Your task to perform on an android device: turn vacation reply on in the gmail app Image 0: 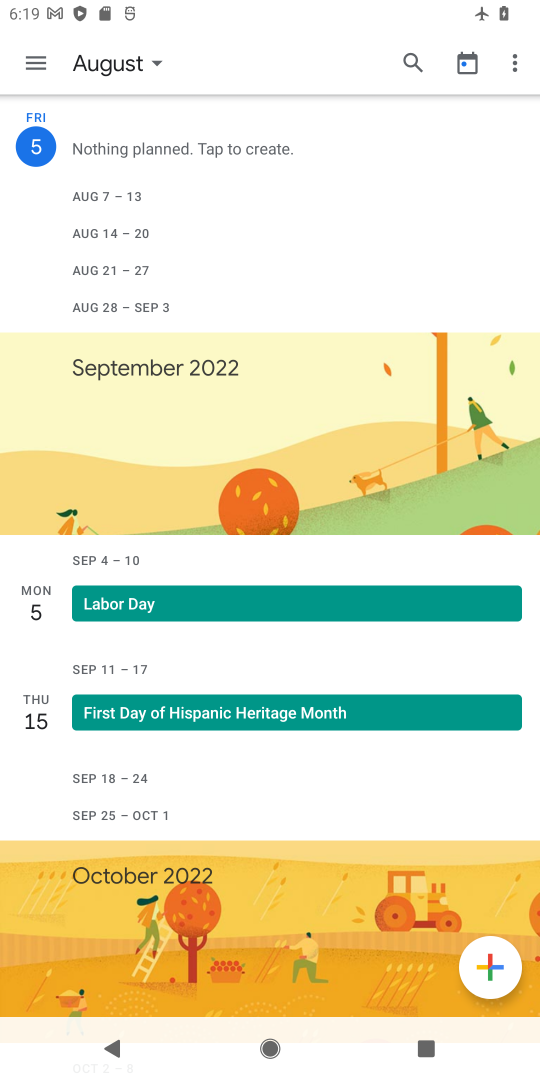
Step 0: press back button
Your task to perform on an android device: turn vacation reply on in the gmail app Image 1: 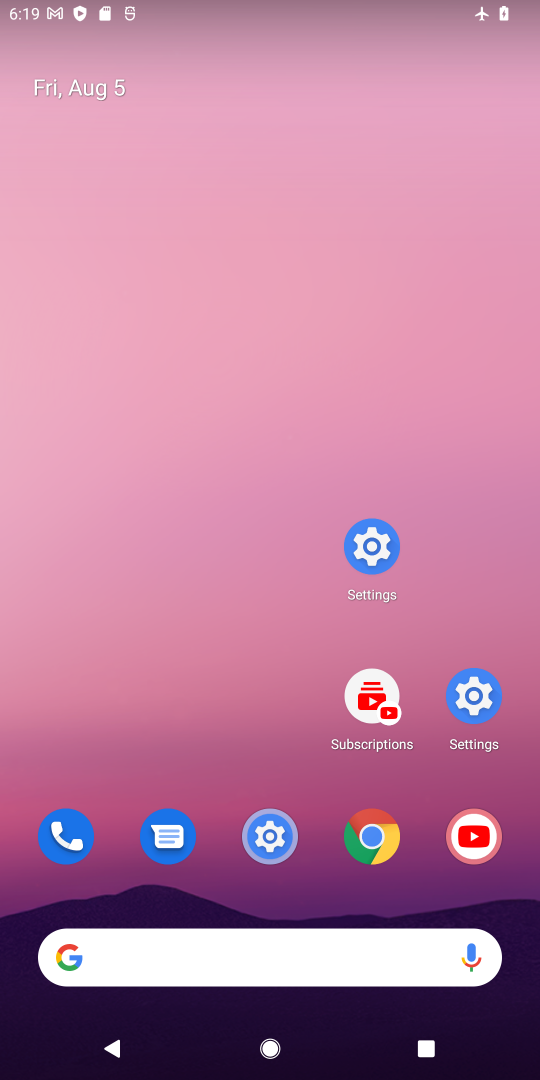
Step 1: drag from (237, 1017) to (198, 268)
Your task to perform on an android device: turn vacation reply on in the gmail app Image 2: 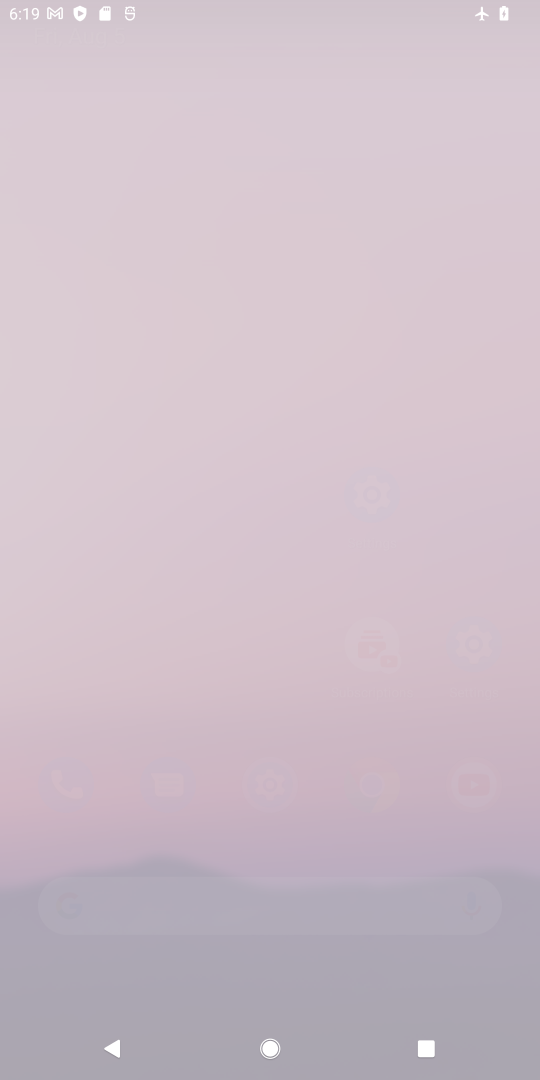
Step 2: drag from (260, 664) to (201, 307)
Your task to perform on an android device: turn vacation reply on in the gmail app Image 3: 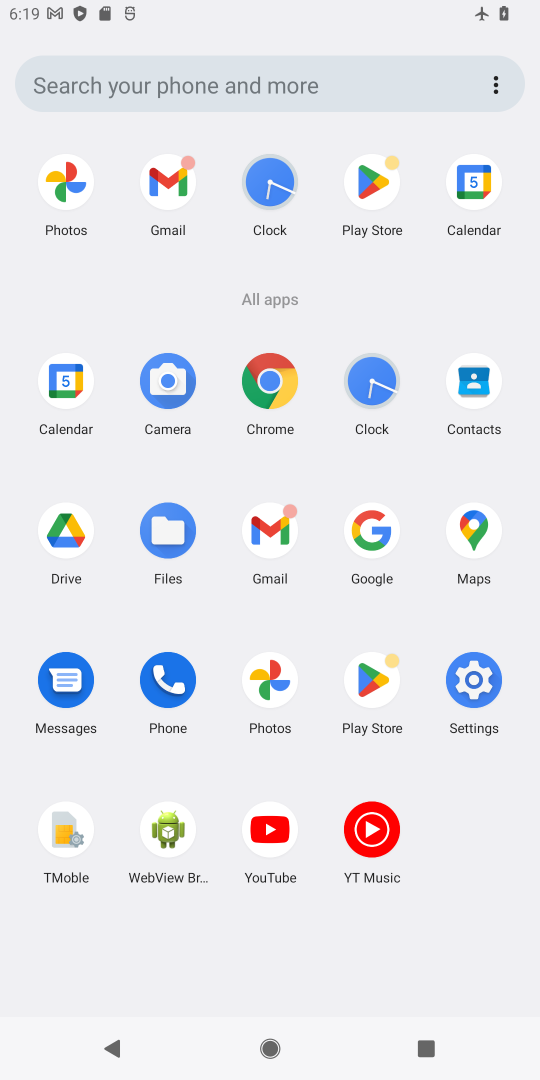
Step 3: click (273, 515)
Your task to perform on an android device: turn vacation reply on in the gmail app Image 4: 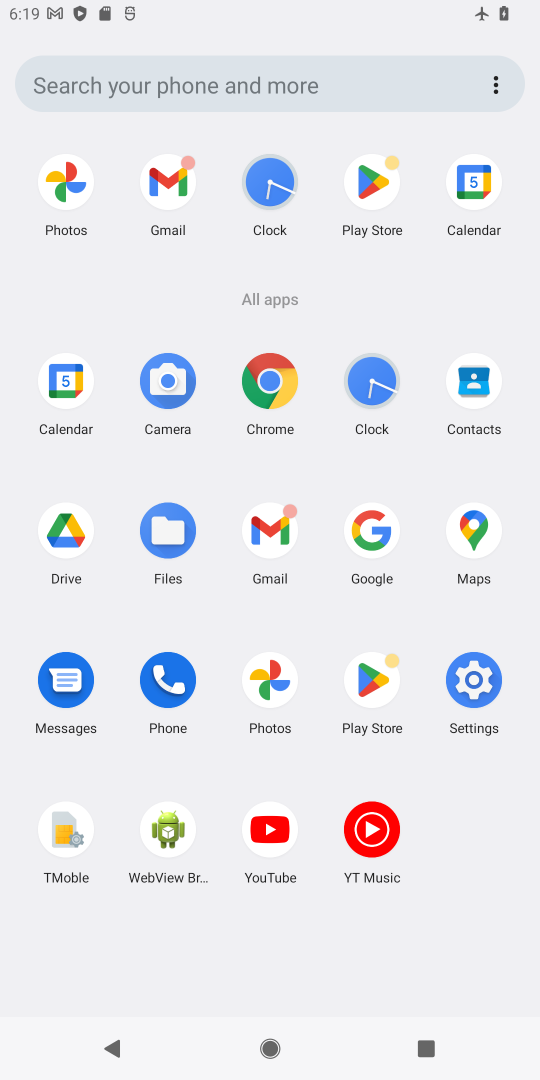
Step 4: click (269, 514)
Your task to perform on an android device: turn vacation reply on in the gmail app Image 5: 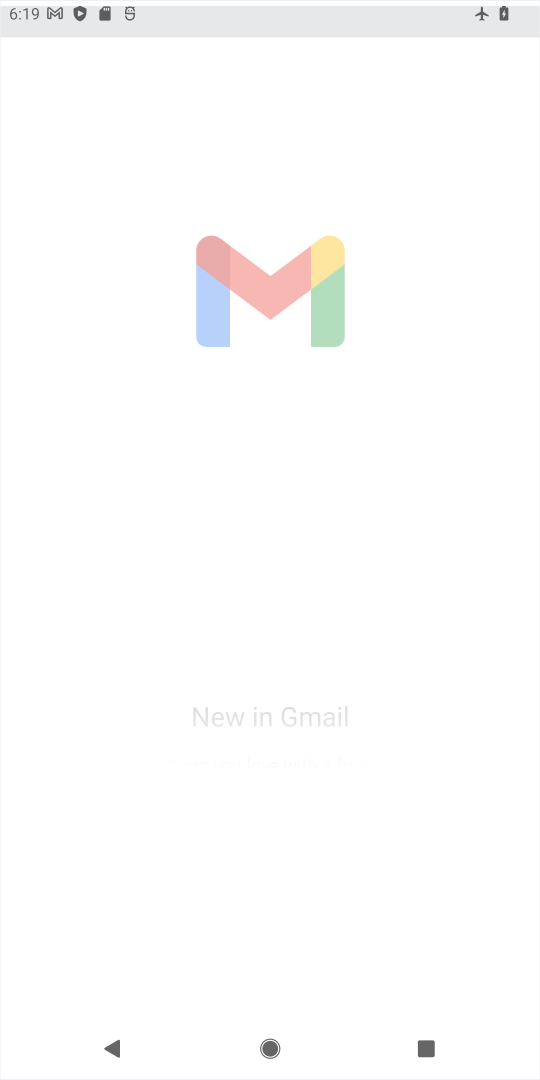
Step 5: click (269, 514)
Your task to perform on an android device: turn vacation reply on in the gmail app Image 6: 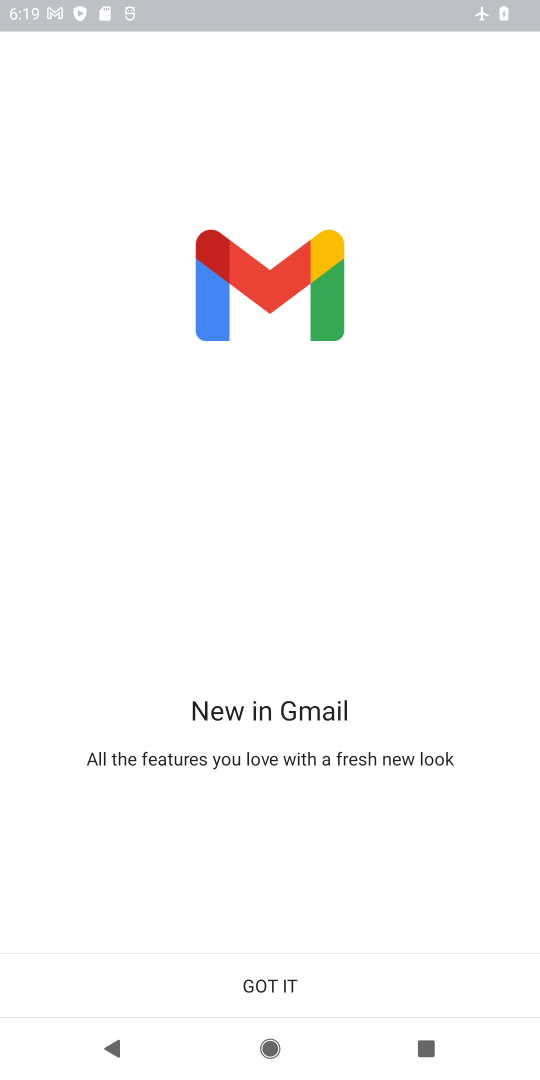
Step 6: click (269, 514)
Your task to perform on an android device: turn vacation reply on in the gmail app Image 7: 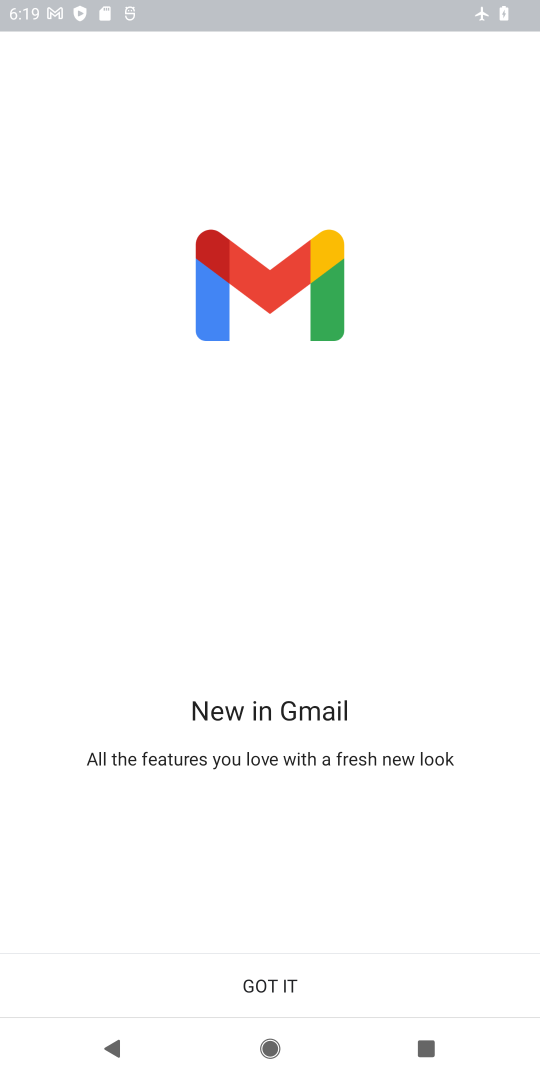
Step 7: click (288, 969)
Your task to perform on an android device: turn vacation reply on in the gmail app Image 8: 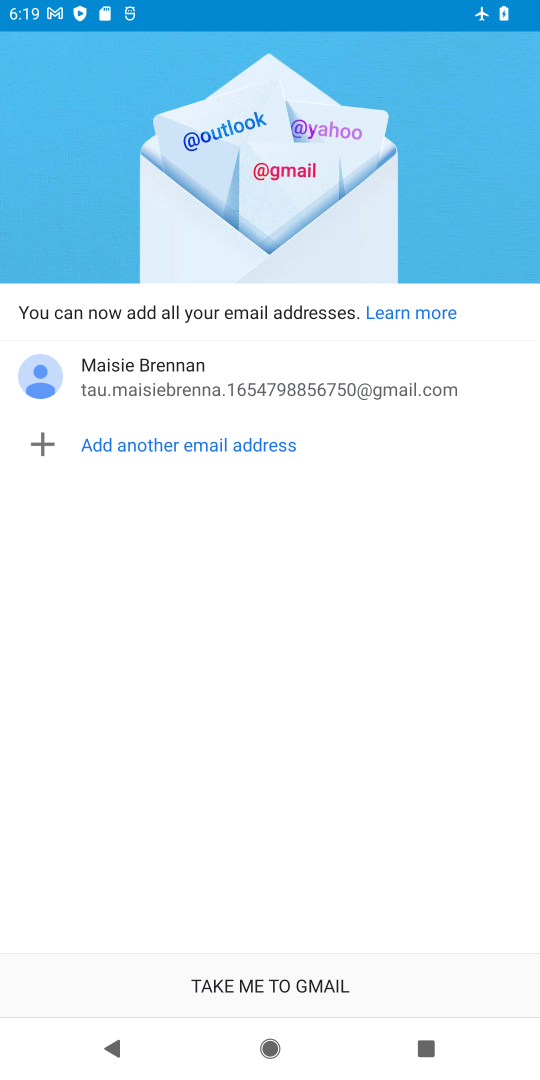
Step 8: click (279, 977)
Your task to perform on an android device: turn vacation reply on in the gmail app Image 9: 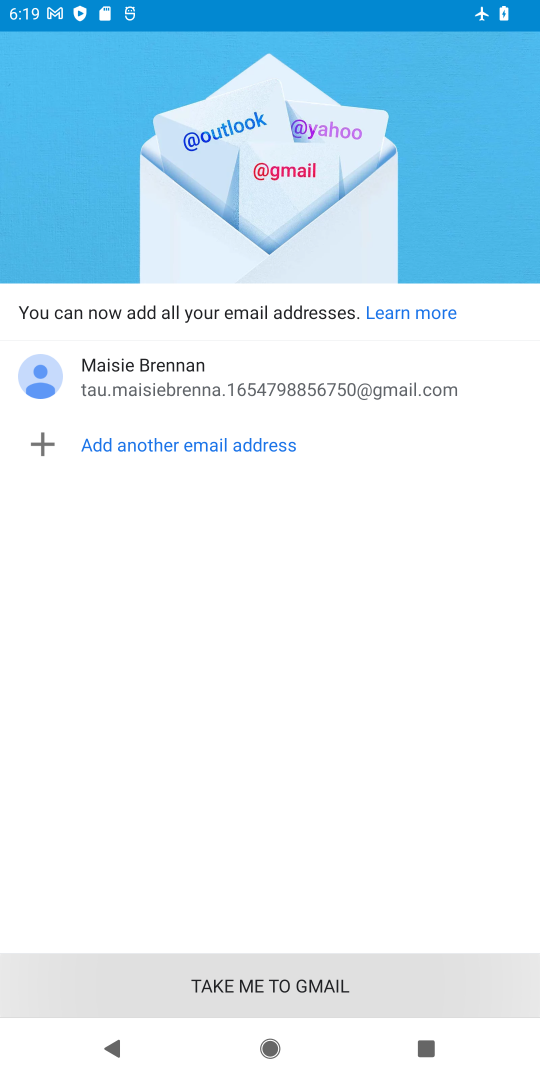
Step 9: click (279, 977)
Your task to perform on an android device: turn vacation reply on in the gmail app Image 10: 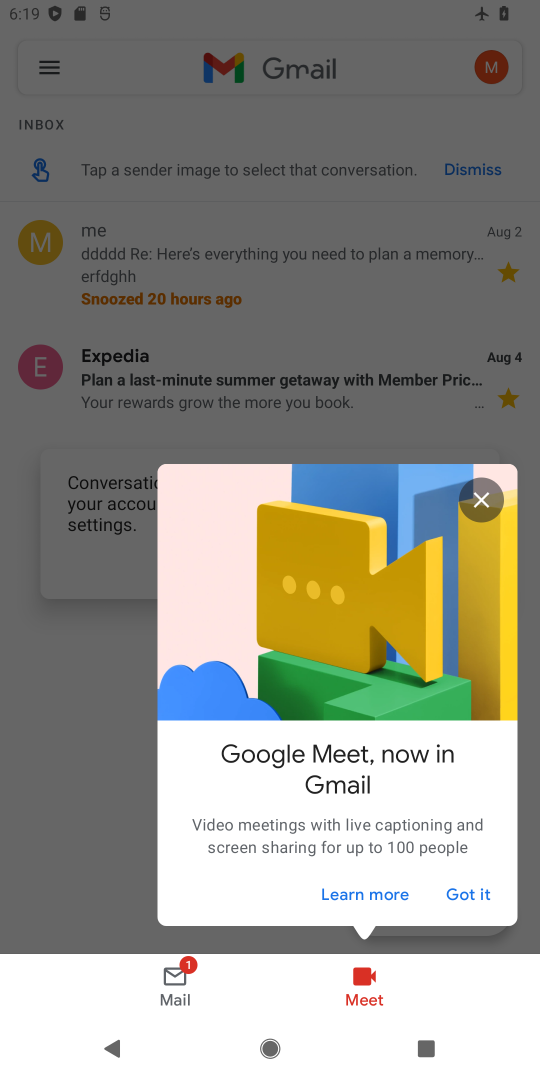
Step 10: click (480, 496)
Your task to perform on an android device: turn vacation reply on in the gmail app Image 11: 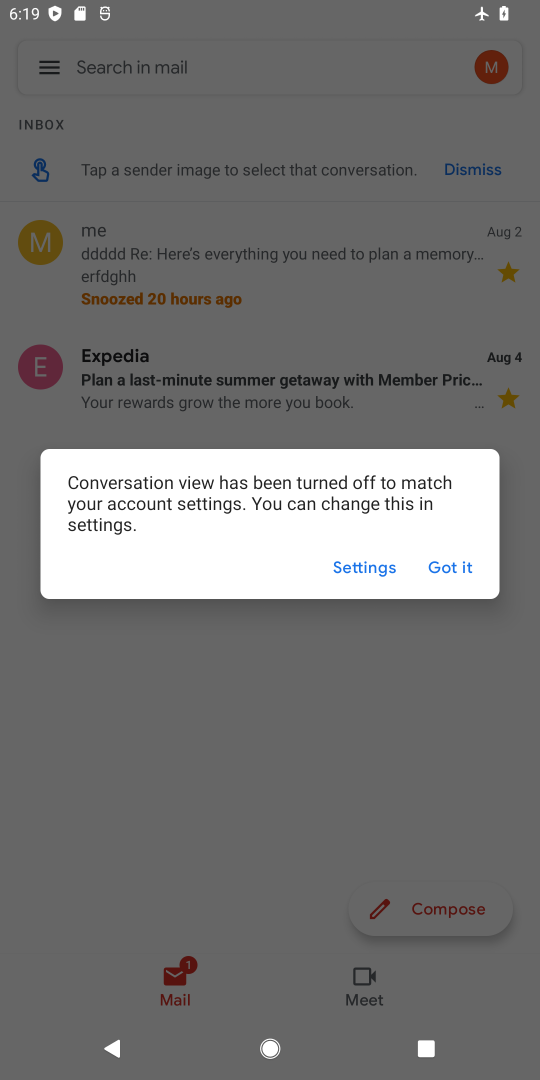
Step 11: click (427, 568)
Your task to perform on an android device: turn vacation reply on in the gmail app Image 12: 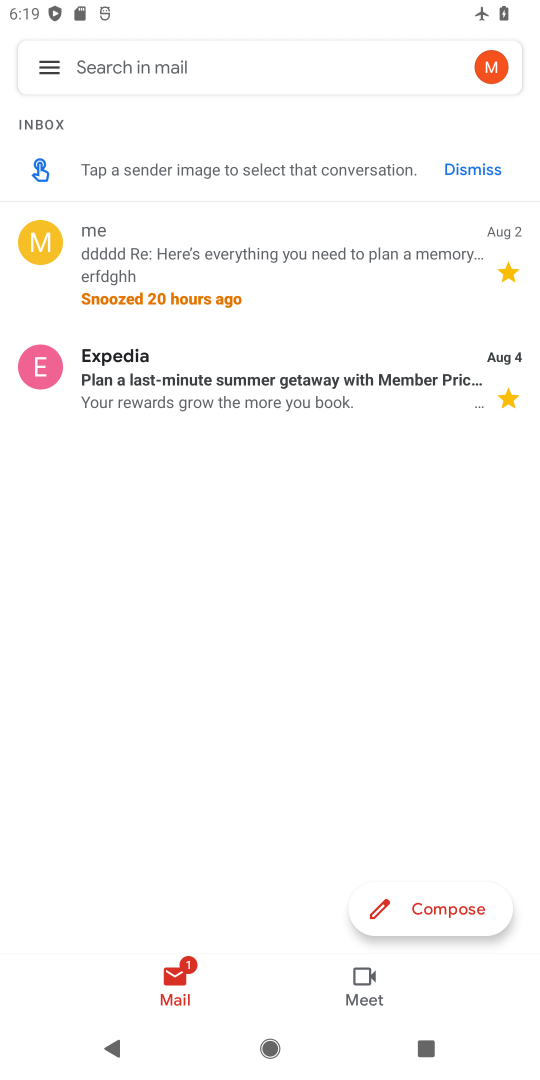
Step 12: click (48, 60)
Your task to perform on an android device: turn vacation reply on in the gmail app Image 13: 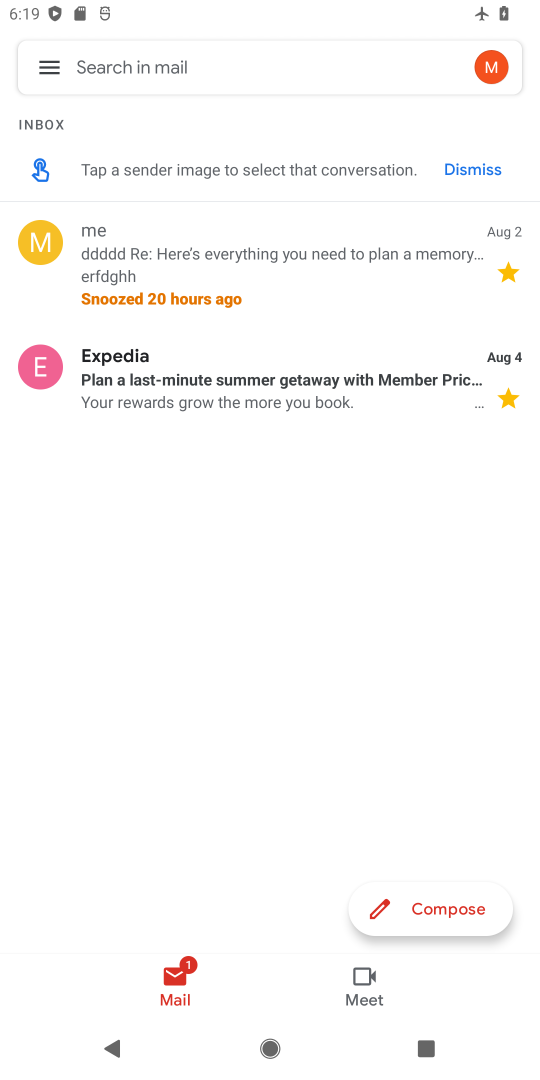
Step 13: click (48, 60)
Your task to perform on an android device: turn vacation reply on in the gmail app Image 14: 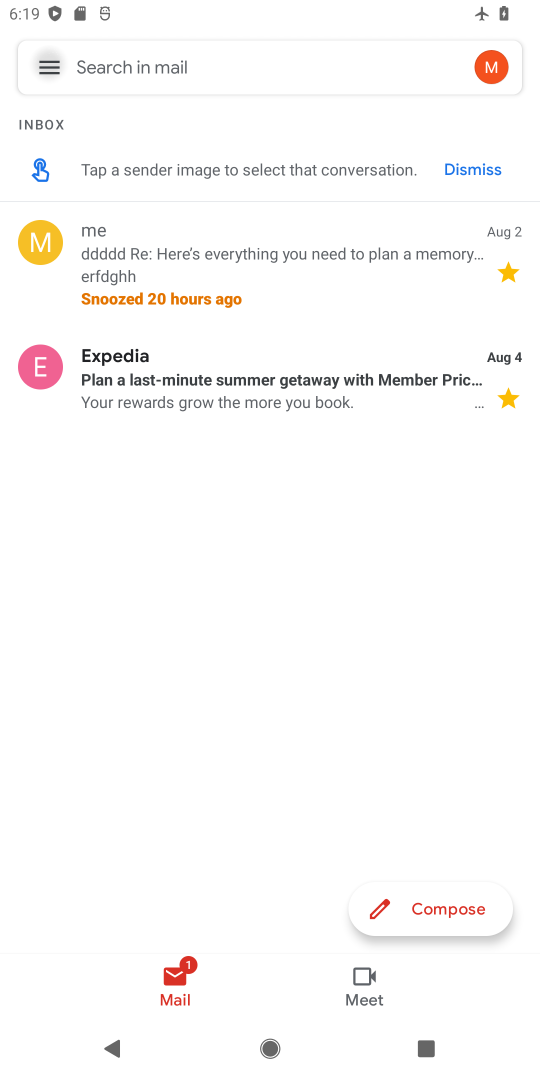
Step 14: click (49, 63)
Your task to perform on an android device: turn vacation reply on in the gmail app Image 15: 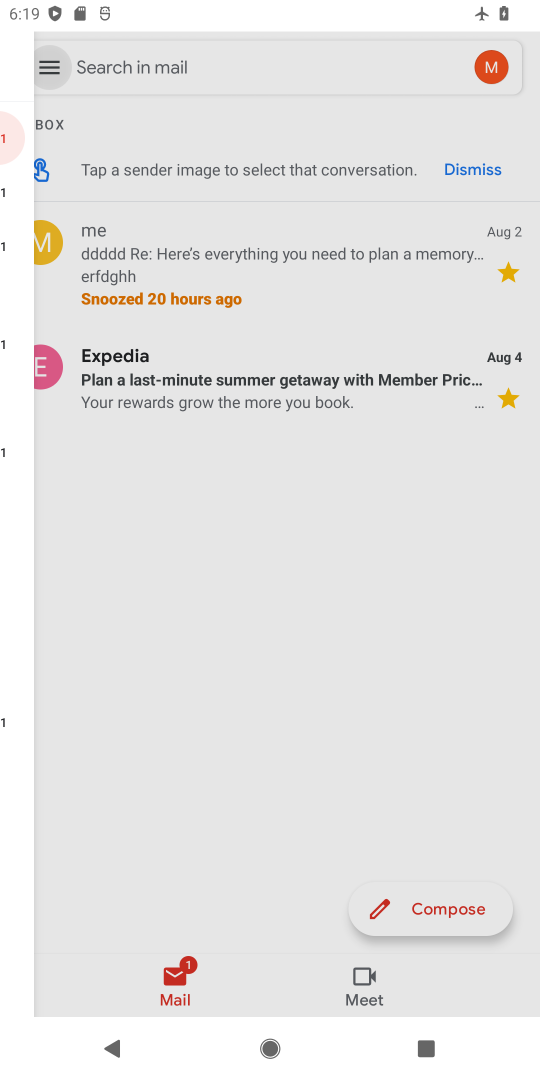
Step 15: click (49, 63)
Your task to perform on an android device: turn vacation reply on in the gmail app Image 16: 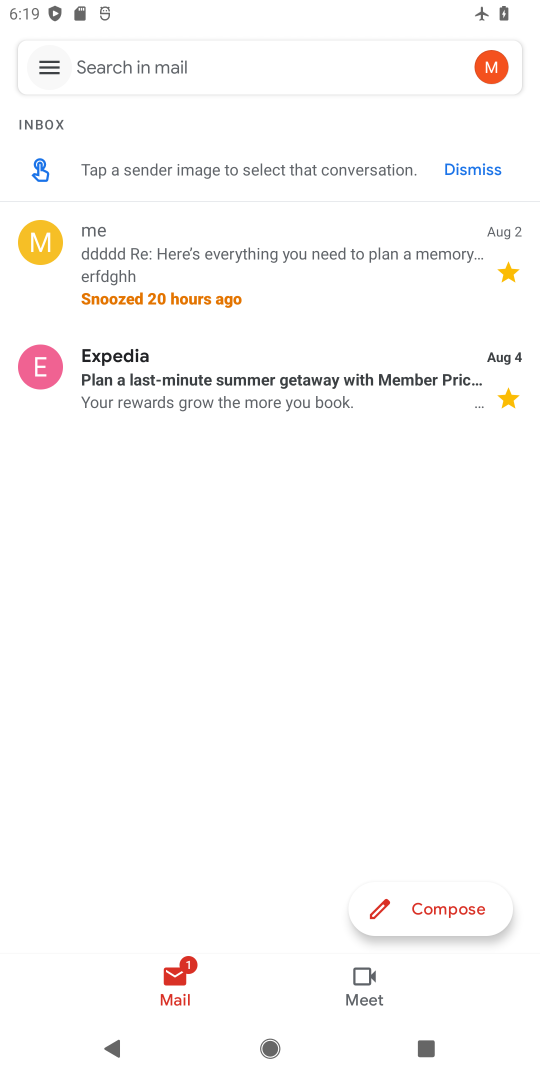
Step 16: click (49, 63)
Your task to perform on an android device: turn vacation reply on in the gmail app Image 17: 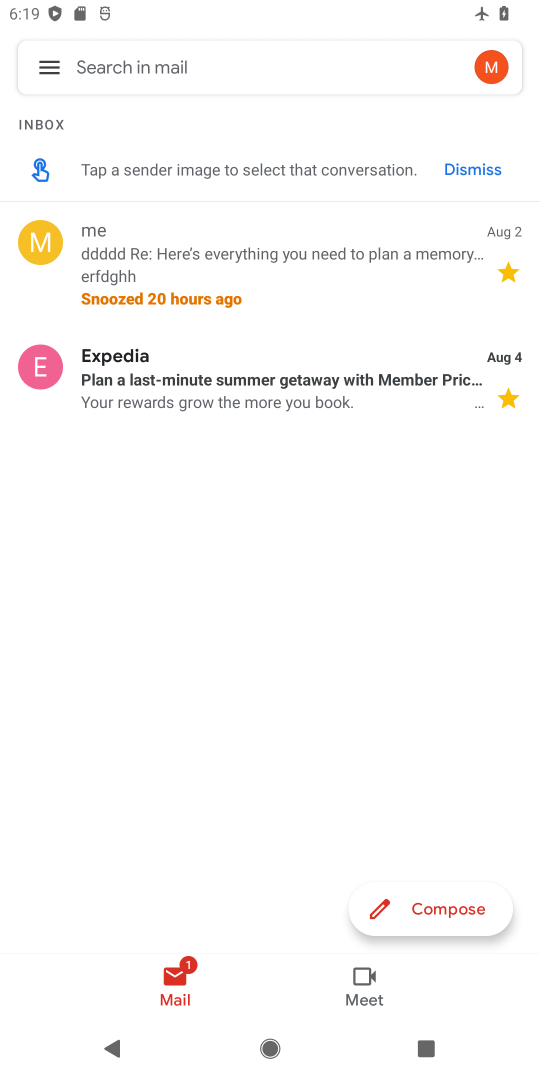
Step 17: click (48, 64)
Your task to perform on an android device: turn vacation reply on in the gmail app Image 18: 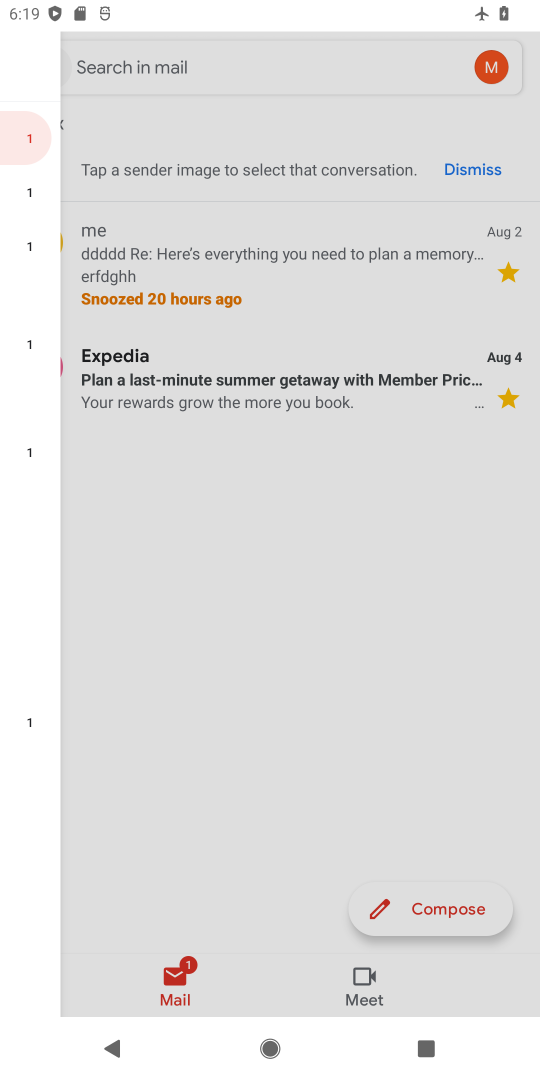
Step 18: click (48, 64)
Your task to perform on an android device: turn vacation reply on in the gmail app Image 19: 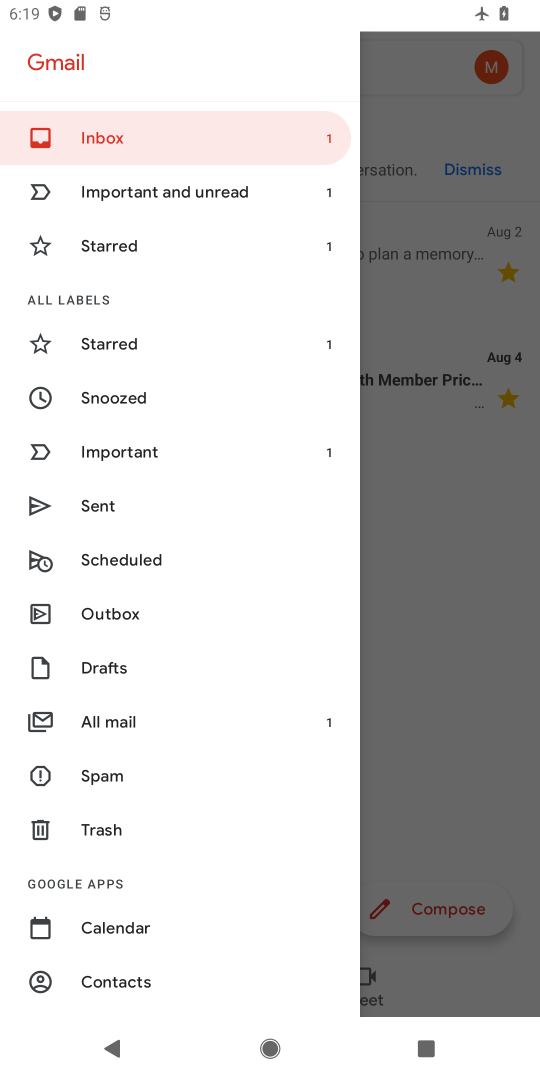
Step 19: drag from (109, 901) to (131, 464)
Your task to perform on an android device: turn vacation reply on in the gmail app Image 20: 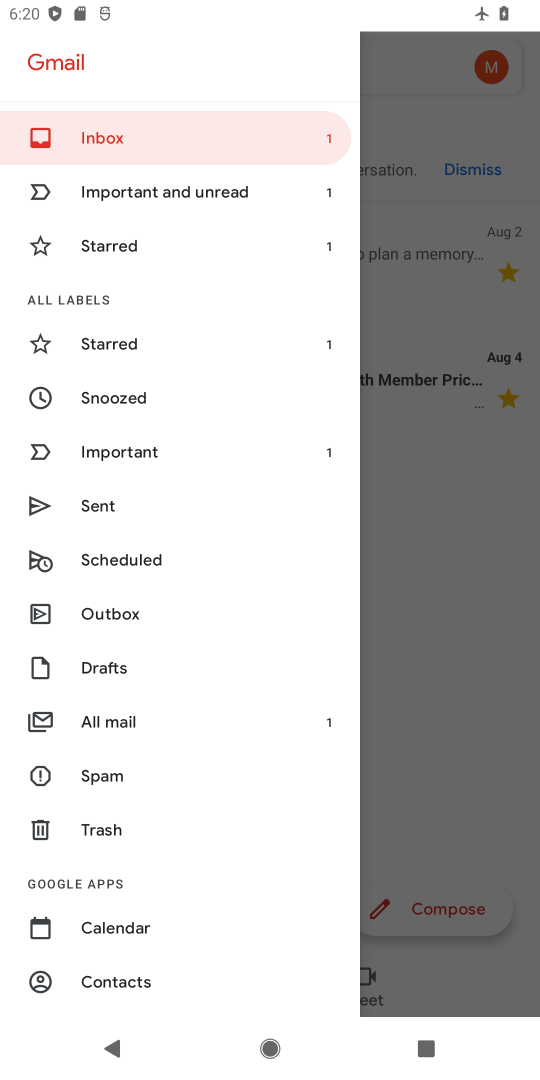
Step 20: drag from (182, 893) to (175, 412)
Your task to perform on an android device: turn vacation reply on in the gmail app Image 21: 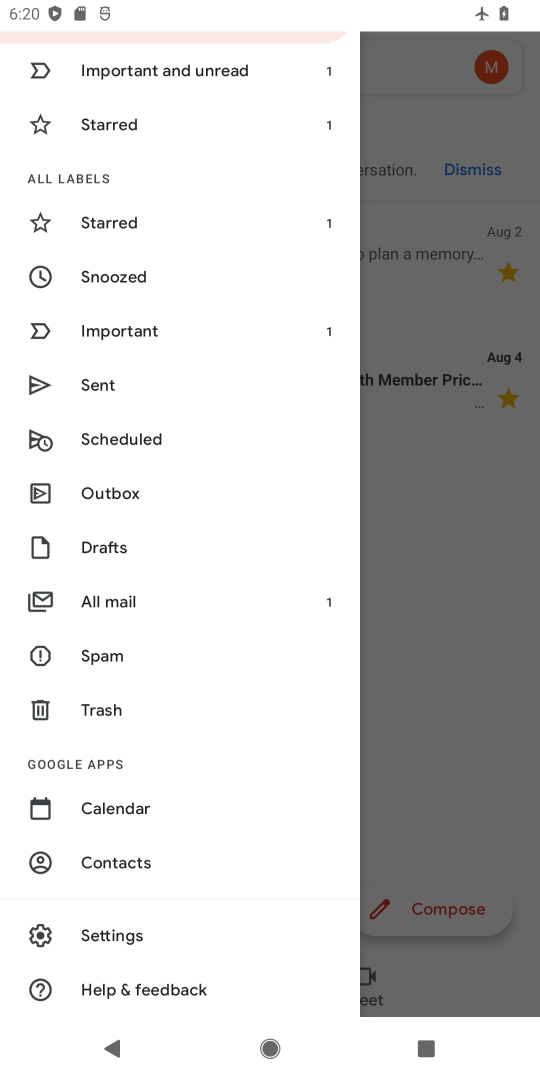
Step 21: drag from (175, 737) to (189, 255)
Your task to perform on an android device: turn vacation reply on in the gmail app Image 22: 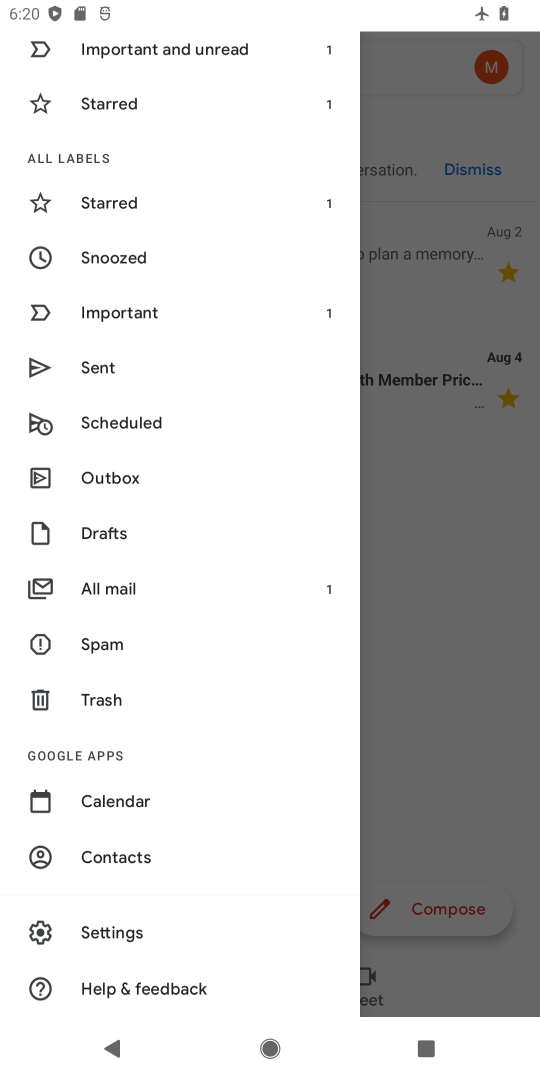
Step 22: drag from (187, 821) to (201, 391)
Your task to perform on an android device: turn vacation reply on in the gmail app Image 23: 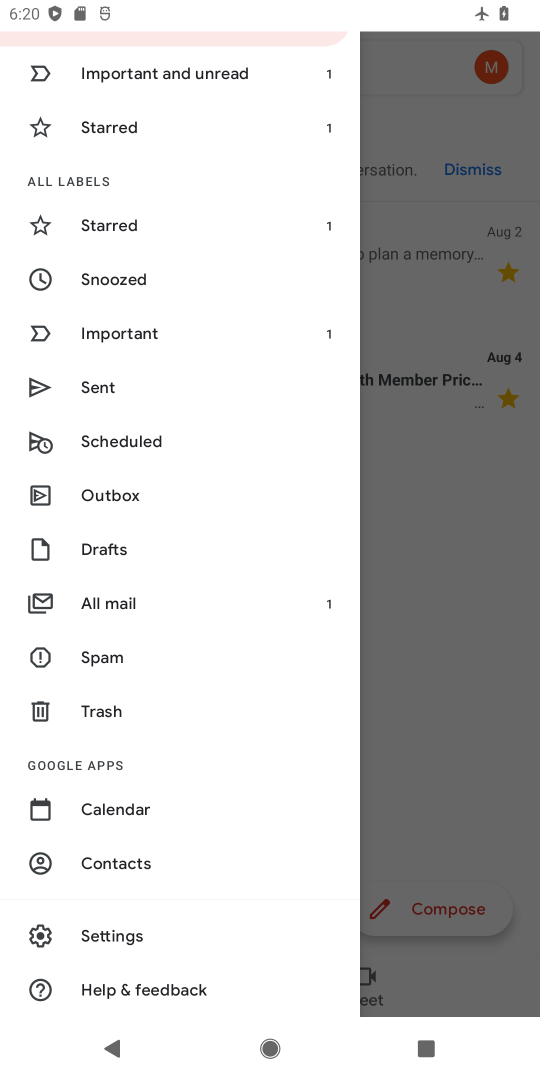
Step 23: click (112, 923)
Your task to perform on an android device: turn vacation reply on in the gmail app Image 24: 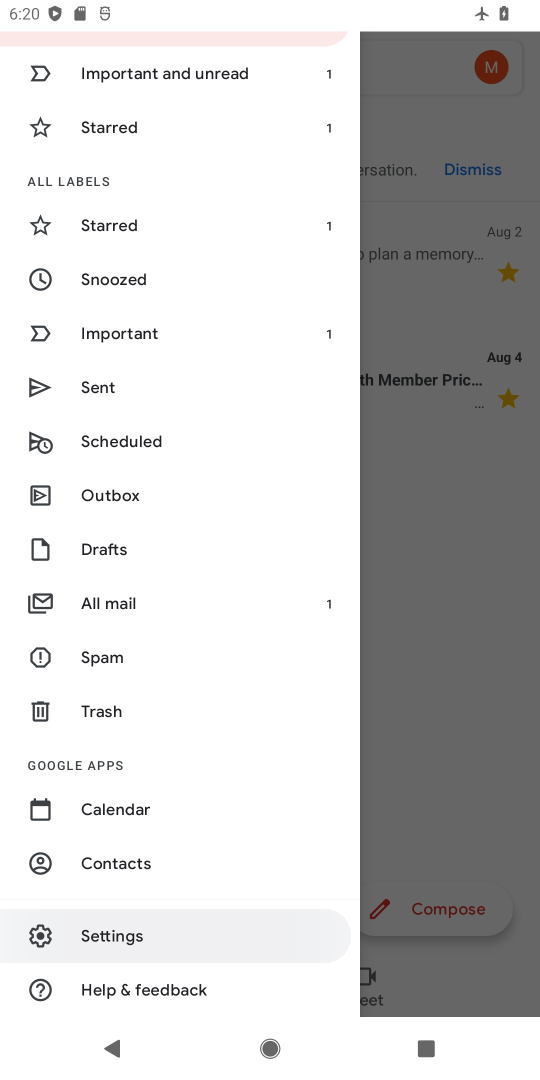
Step 24: click (114, 928)
Your task to perform on an android device: turn vacation reply on in the gmail app Image 25: 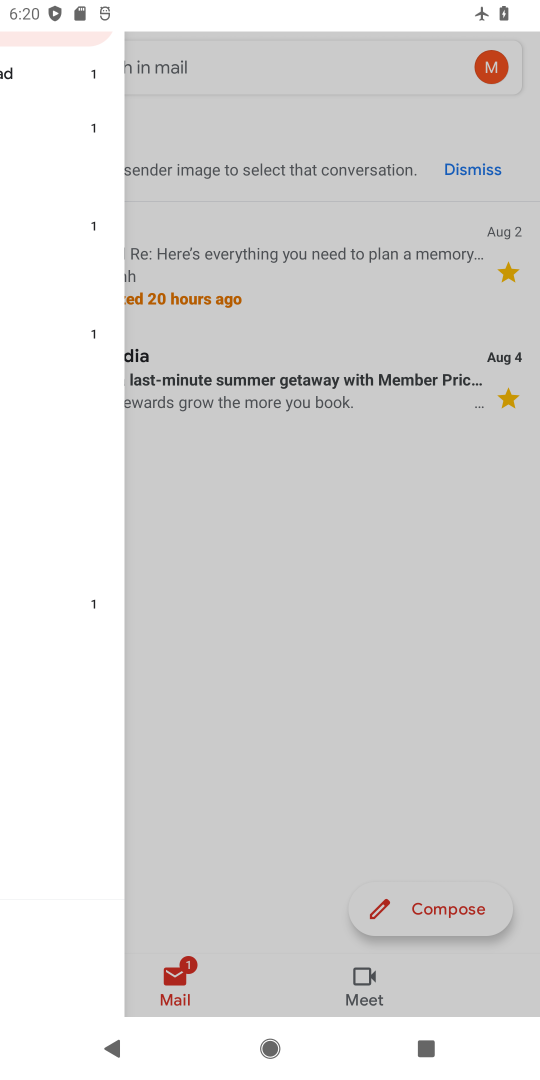
Step 25: click (114, 928)
Your task to perform on an android device: turn vacation reply on in the gmail app Image 26: 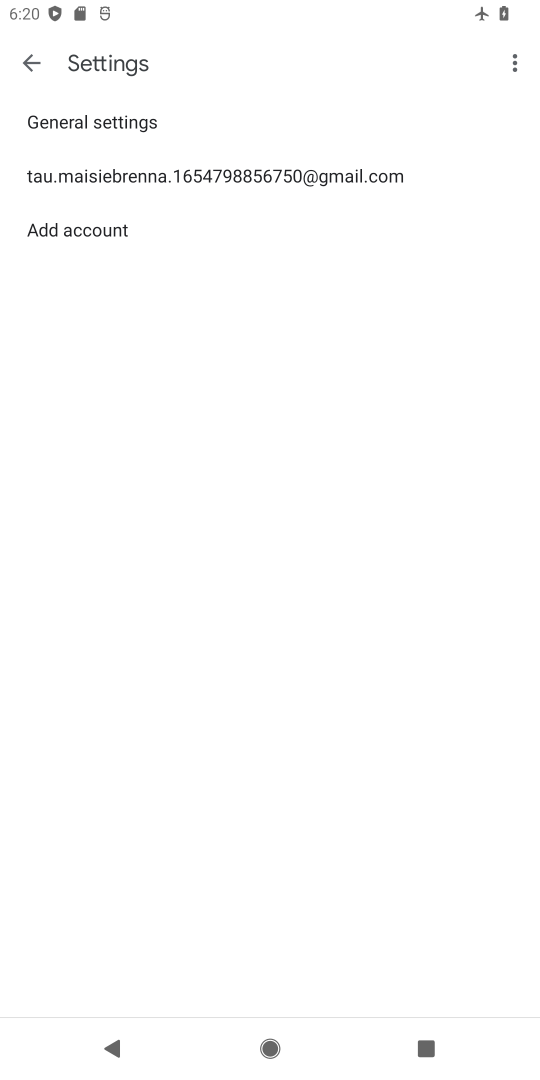
Step 26: click (152, 175)
Your task to perform on an android device: turn vacation reply on in the gmail app Image 27: 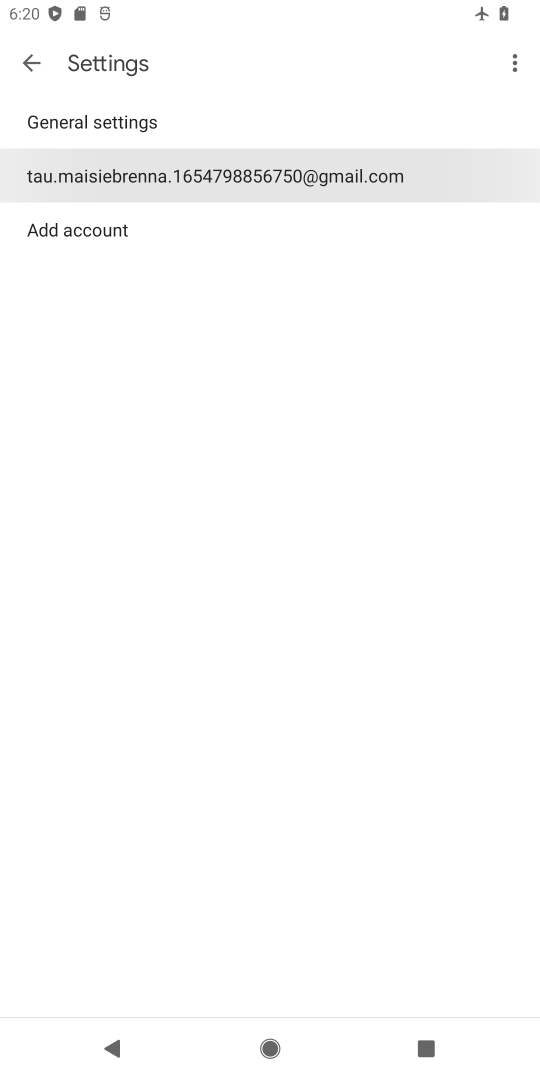
Step 27: click (152, 175)
Your task to perform on an android device: turn vacation reply on in the gmail app Image 28: 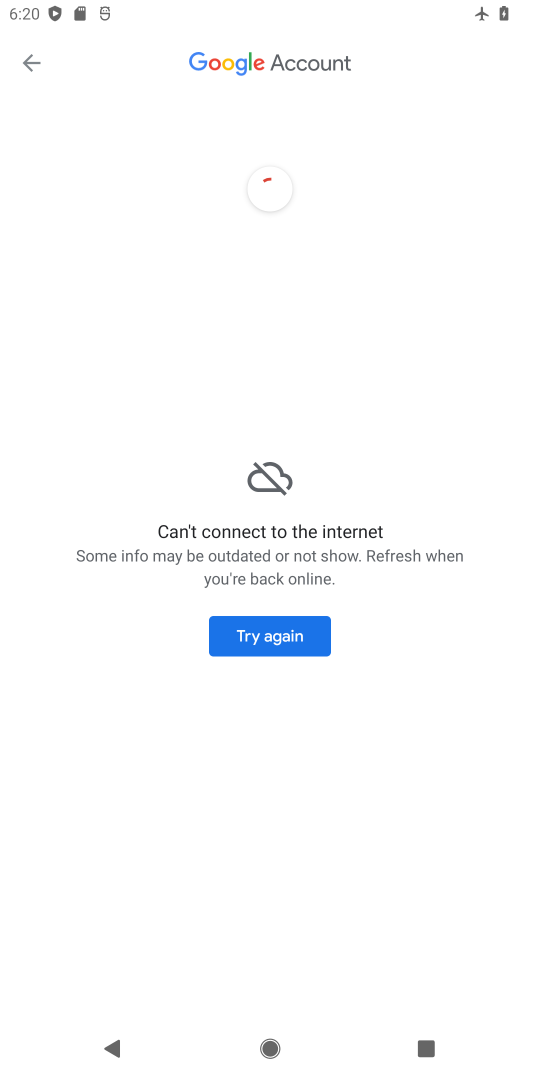
Step 28: click (30, 63)
Your task to perform on an android device: turn vacation reply on in the gmail app Image 29: 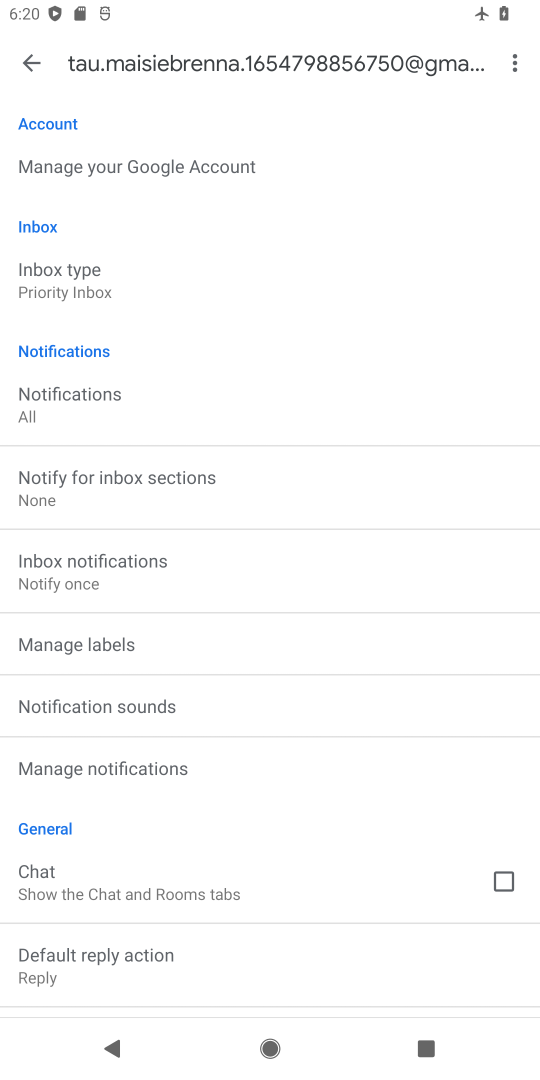
Step 29: drag from (124, 943) to (199, 196)
Your task to perform on an android device: turn vacation reply on in the gmail app Image 30: 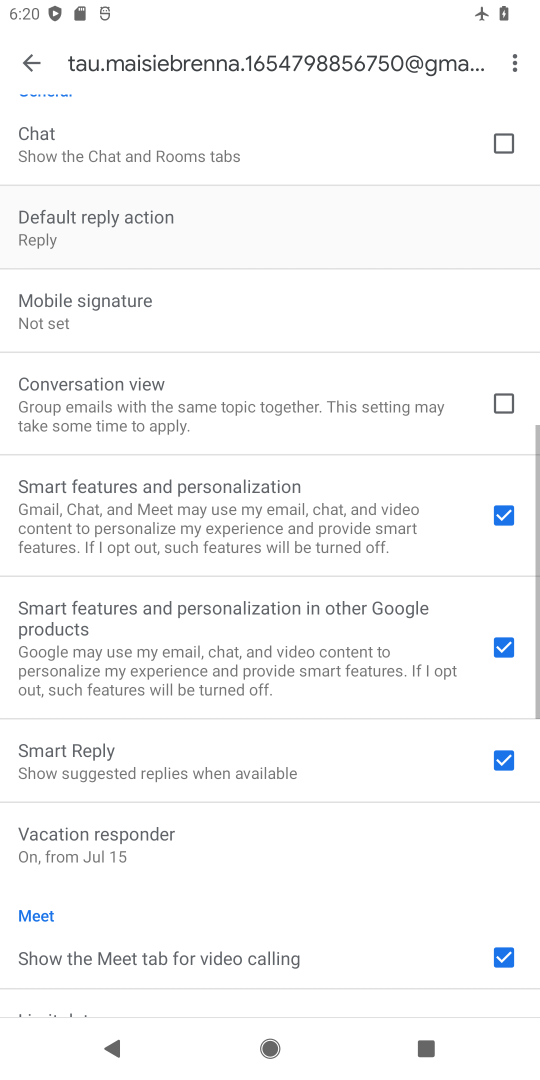
Step 30: drag from (204, 587) to (229, 192)
Your task to perform on an android device: turn vacation reply on in the gmail app Image 31: 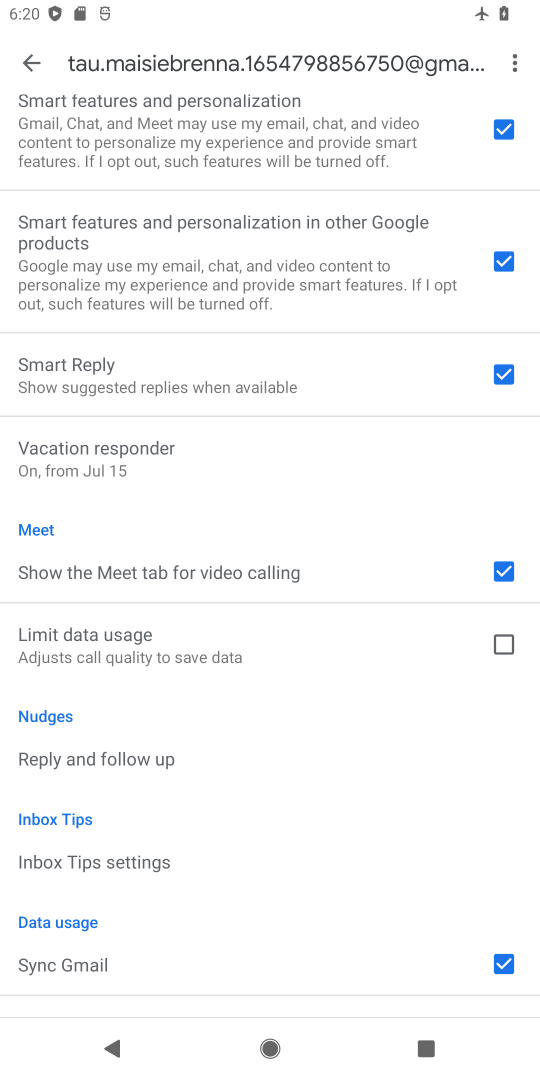
Step 31: click (61, 614)
Your task to perform on an android device: turn vacation reply on in the gmail app Image 32: 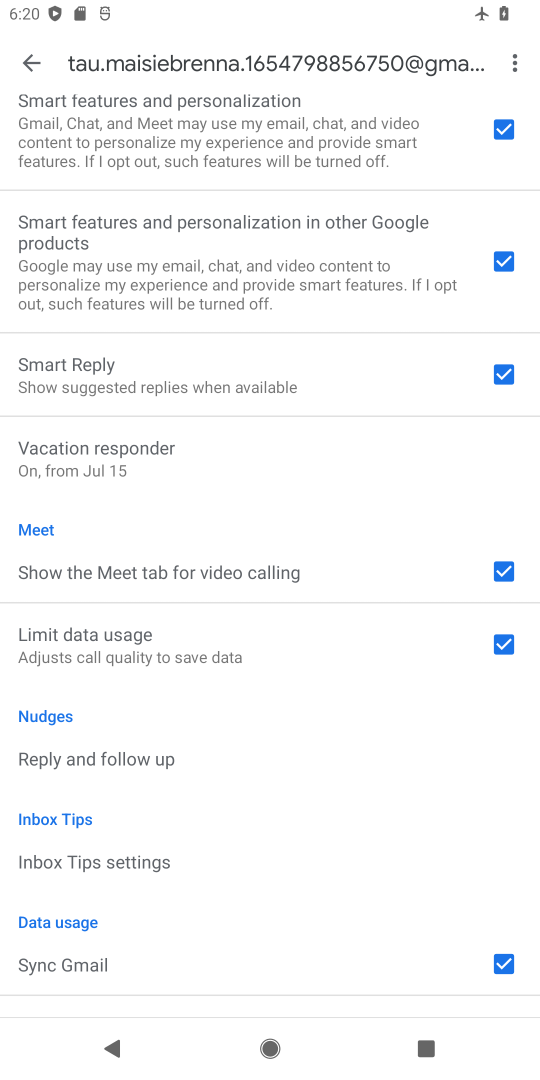
Step 32: click (122, 449)
Your task to perform on an android device: turn vacation reply on in the gmail app Image 33: 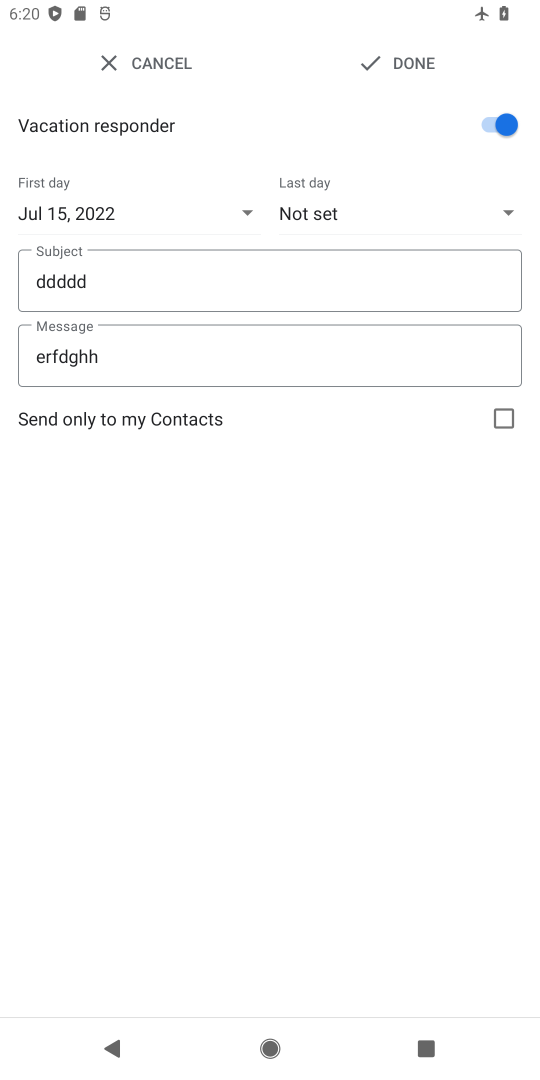
Step 33: task complete